Your task to perform on an android device: Show me popular videos on Youtube Image 0: 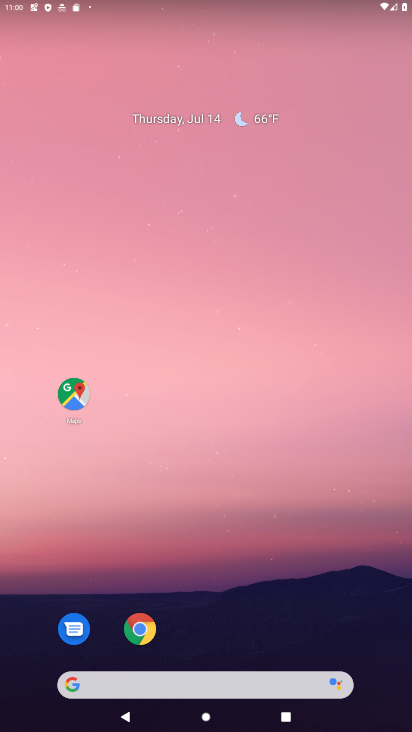
Step 0: press home button
Your task to perform on an android device: Show me popular videos on Youtube Image 1: 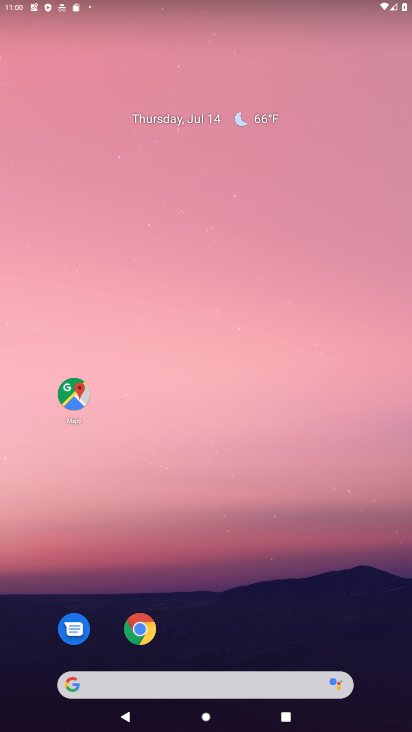
Step 1: drag from (260, 585) to (240, 64)
Your task to perform on an android device: Show me popular videos on Youtube Image 2: 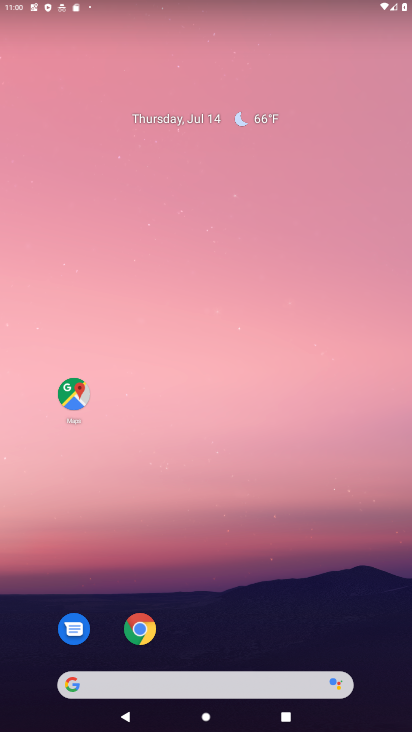
Step 2: drag from (257, 620) to (235, 150)
Your task to perform on an android device: Show me popular videos on Youtube Image 3: 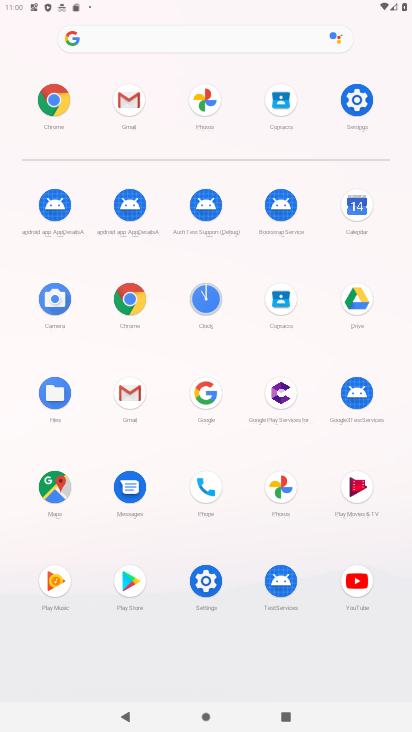
Step 3: click (356, 573)
Your task to perform on an android device: Show me popular videos on Youtube Image 4: 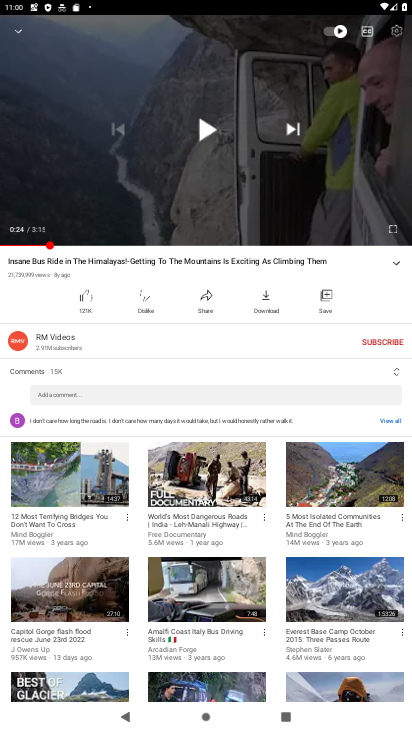
Step 4: press back button
Your task to perform on an android device: Show me popular videos on Youtube Image 5: 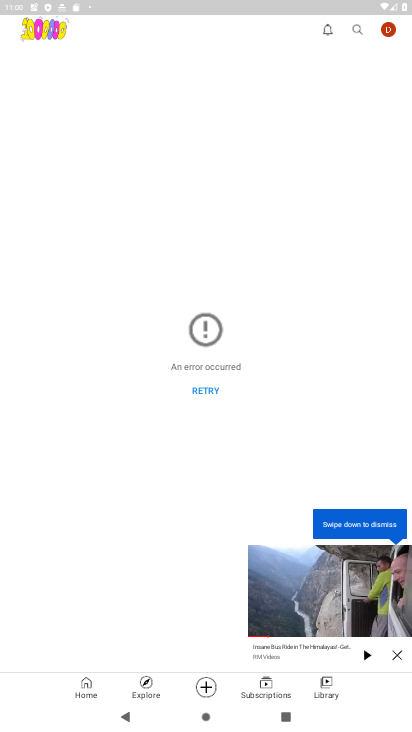
Step 5: click (146, 681)
Your task to perform on an android device: Show me popular videos on Youtube Image 6: 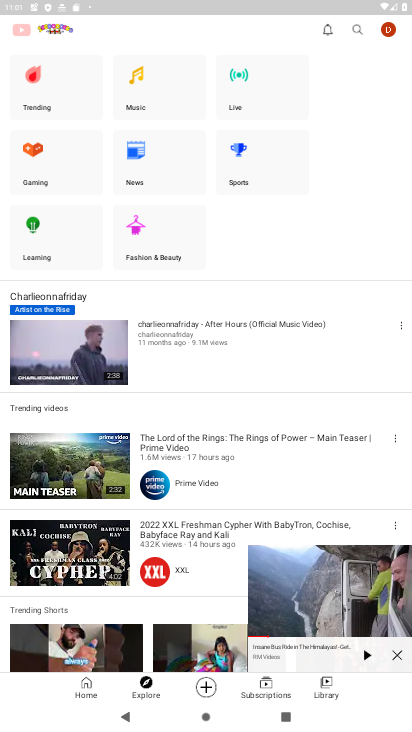
Step 6: click (26, 80)
Your task to perform on an android device: Show me popular videos on Youtube Image 7: 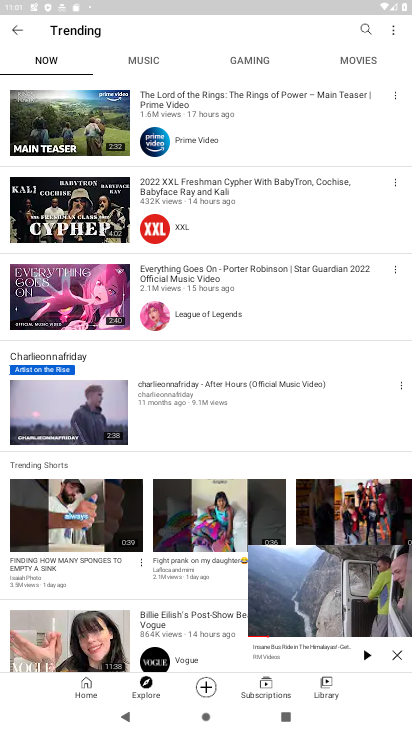
Step 7: task complete